Your task to perform on an android device: Open eBay Image 0: 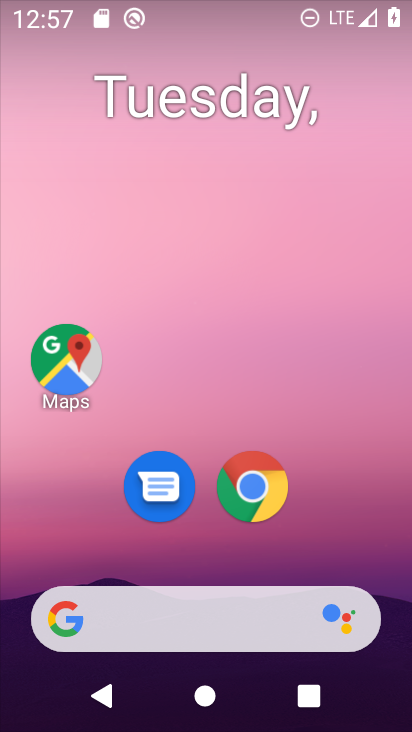
Step 0: click (255, 477)
Your task to perform on an android device: Open eBay Image 1: 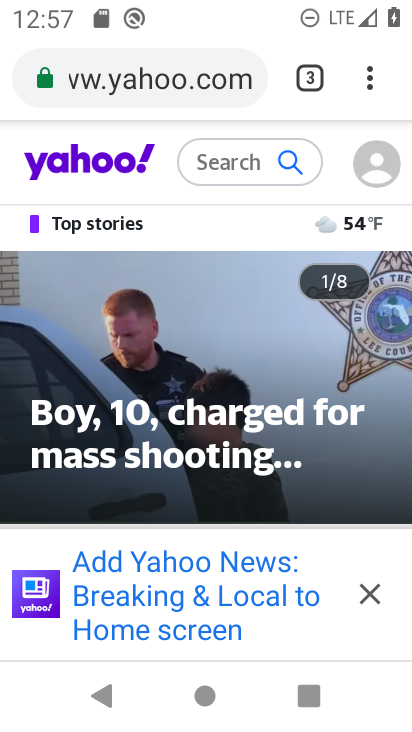
Step 1: click (312, 74)
Your task to perform on an android device: Open eBay Image 2: 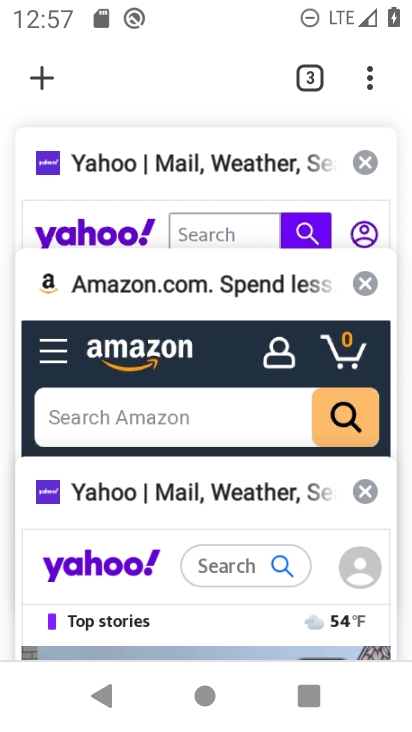
Step 2: click (360, 288)
Your task to perform on an android device: Open eBay Image 3: 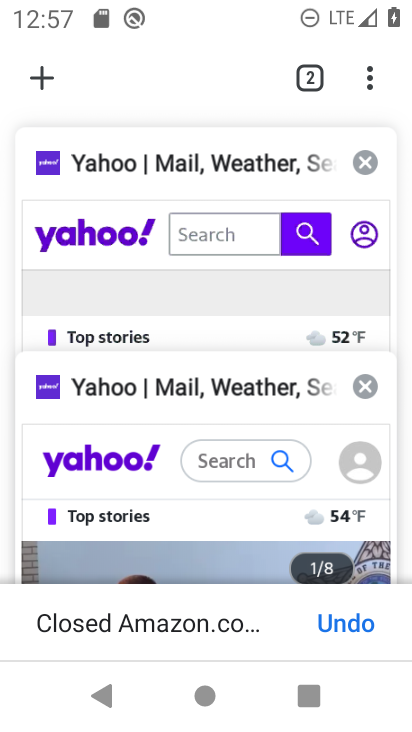
Step 3: click (367, 394)
Your task to perform on an android device: Open eBay Image 4: 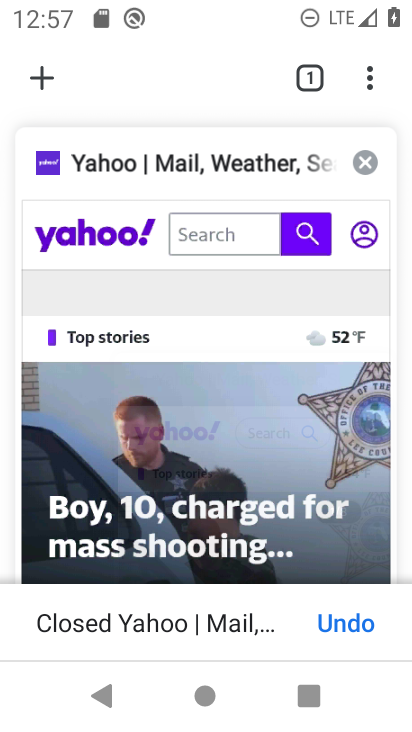
Step 4: click (361, 161)
Your task to perform on an android device: Open eBay Image 5: 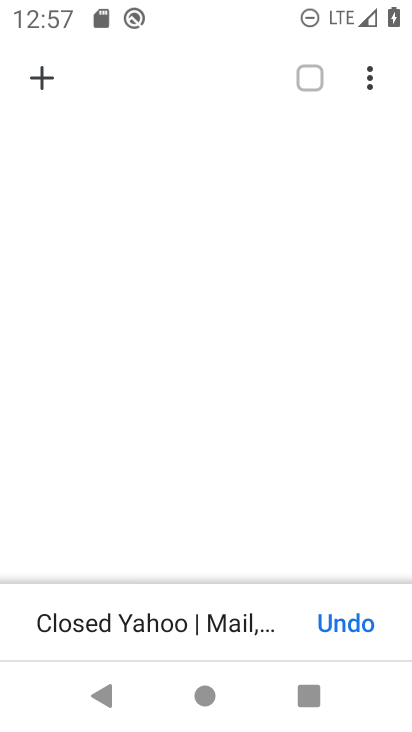
Step 5: click (44, 67)
Your task to perform on an android device: Open eBay Image 6: 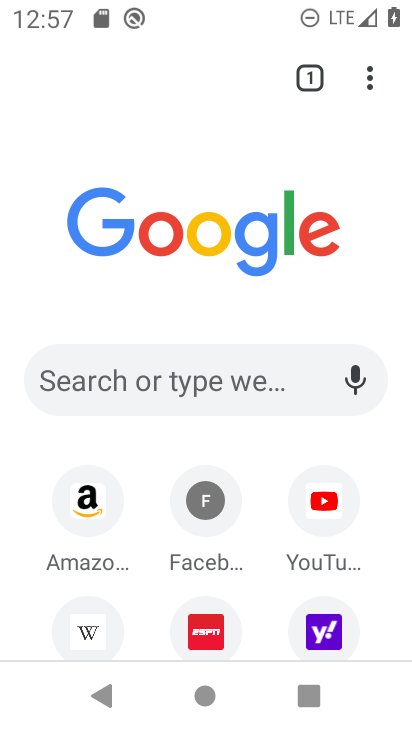
Step 6: drag from (12, 626) to (252, 188)
Your task to perform on an android device: Open eBay Image 7: 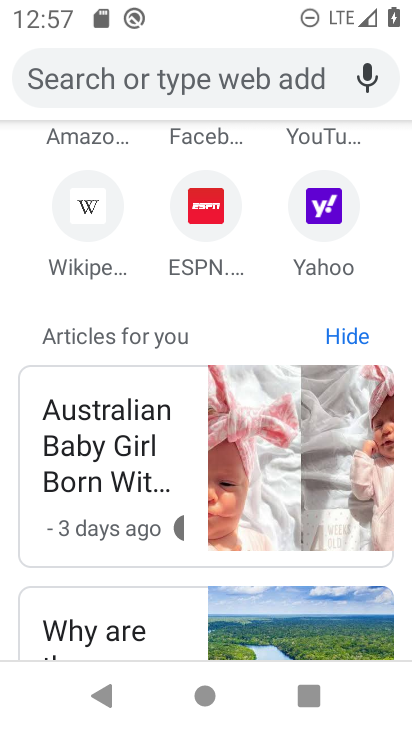
Step 7: click (243, 83)
Your task to perform on an android device: Open eBay Image 8: 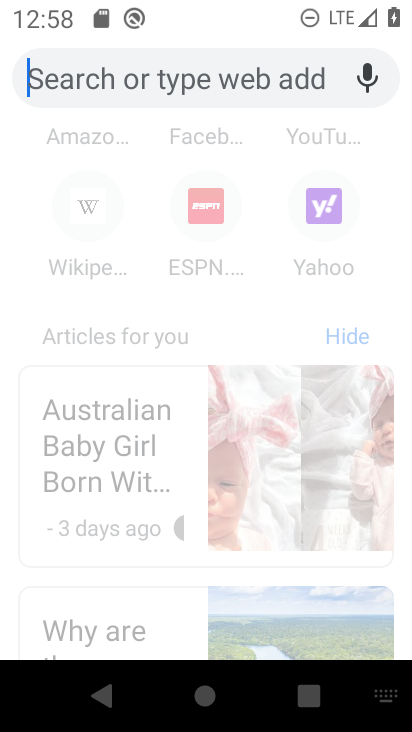
Step 8: type "eBay"
Your task to perform on an android device: Open eBay Image 9: 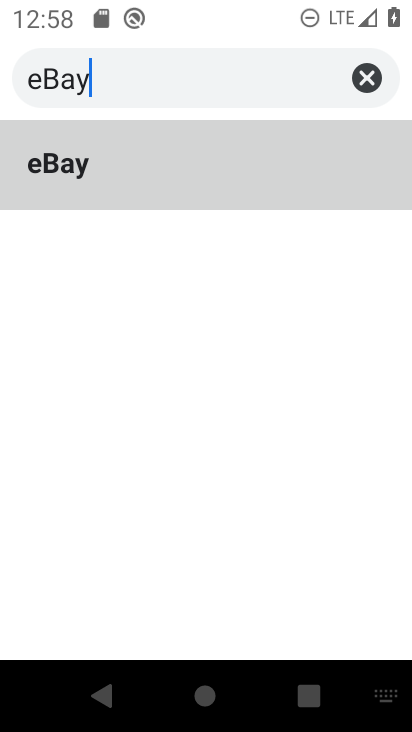
Step 9: type ""
Your task to perform on an android device: Open eBay Image 10: 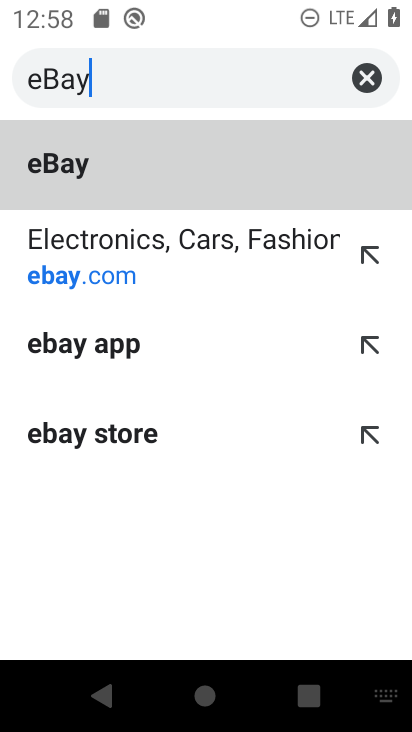
Step 10: click (120, 179)
Your task to perform on an android device: Open eBay Image 11: 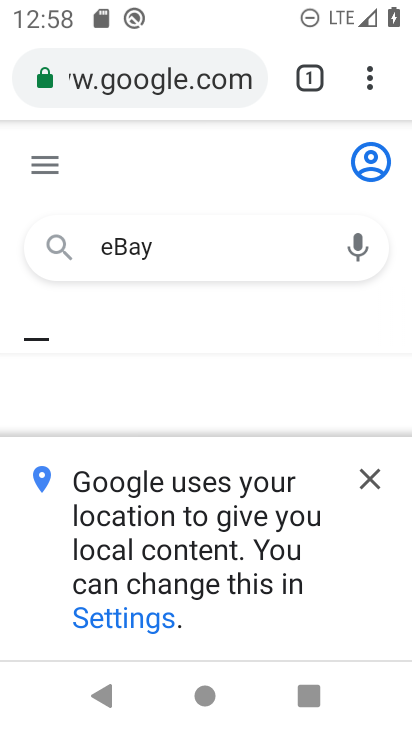
Step 11: click (368, 483)
Your task to perform on an android device: Open eBay Image 12: 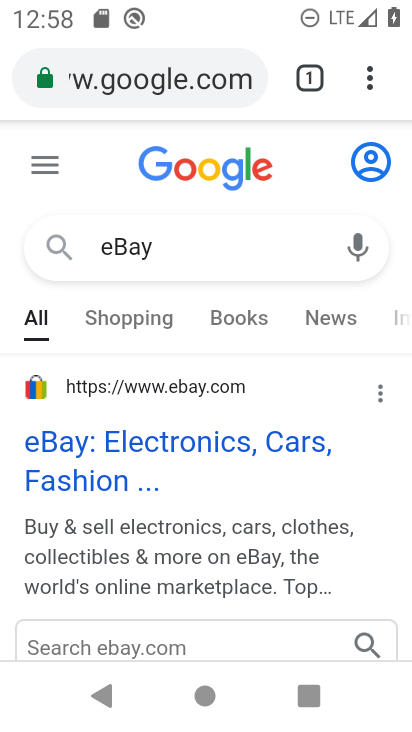
Step 12: task complete